Your task to perform on an android device: Go to privacy settings Image 0: 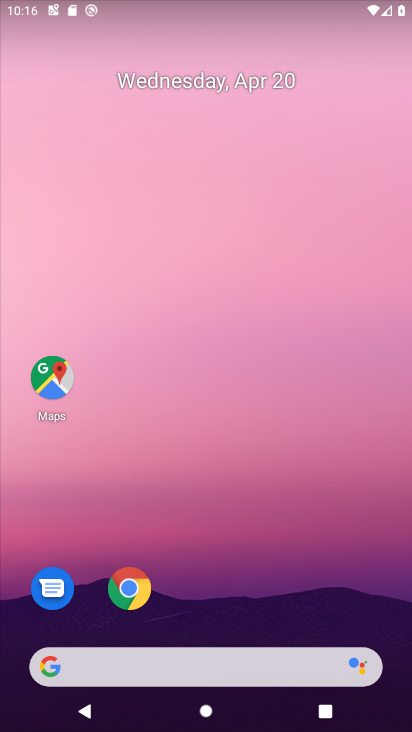
Step 0: drag from (246, 535) to (190, 6)
Your task to perform on an android device: Go to privacy settings Image 1: 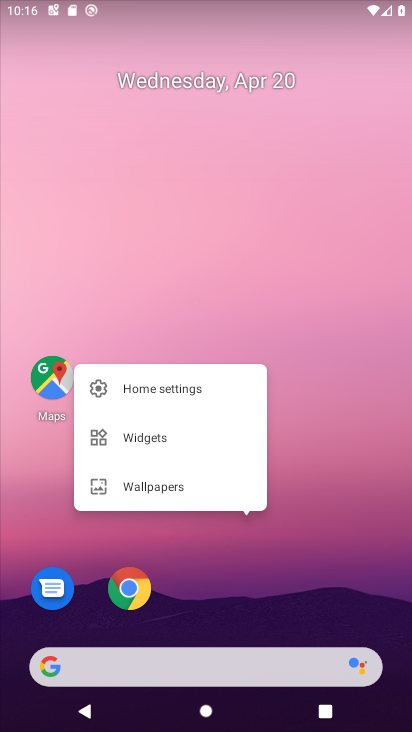
Step 1: click (255, 636)
Your task to perform on an android device: Go to privacy settings Image 2: 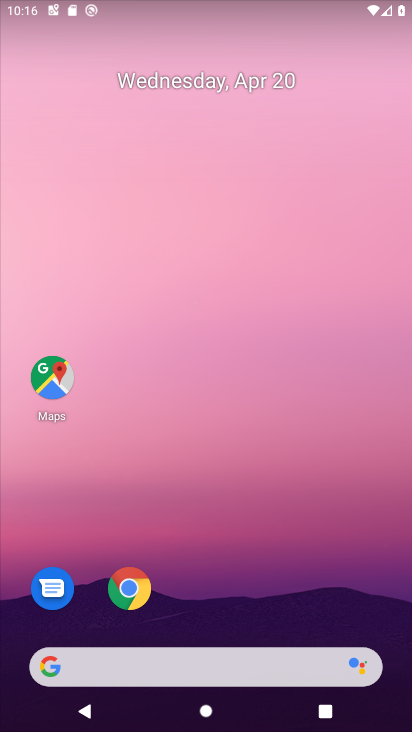
Step 2: drag from (250, 593) to (276, 8)
Your task to perform on an android device: Go to privacy settings Image 3: 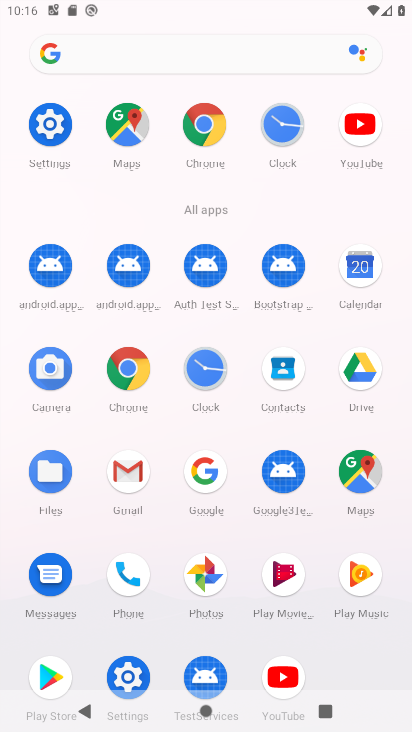
Step 3: click (57, 124)
Your task to perform on an android device: Go to privacy settings Image 4: 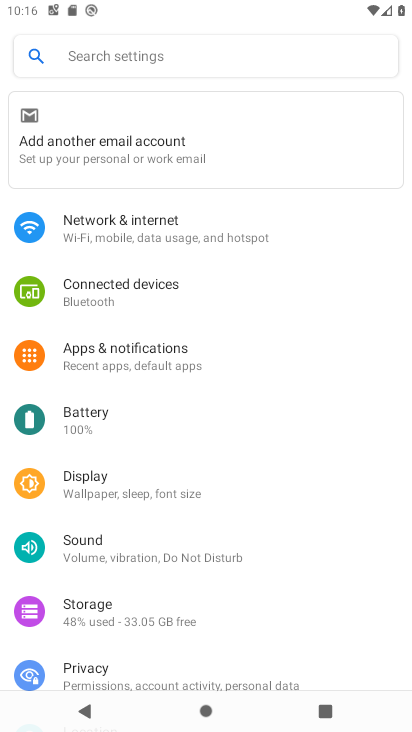
Step 4: click (88, 669)
Your task to perform on an android device: Go to privacy settings Image 5: 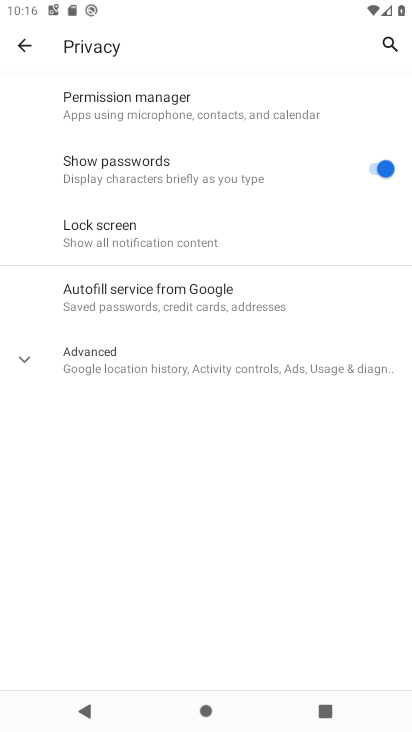
Step 5: task complete